Your task to perform on an android device: Open the calendar and show me this week's events? Image 0: 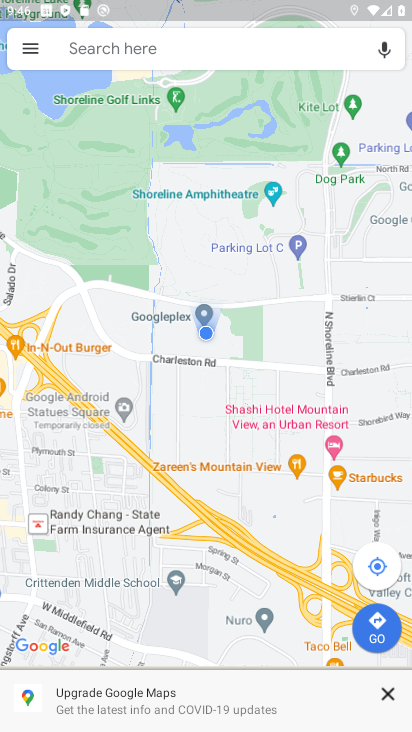
Step 0: press home button
Your task to perform on an android device: Open the calendar and show me this week's events? Image 1: 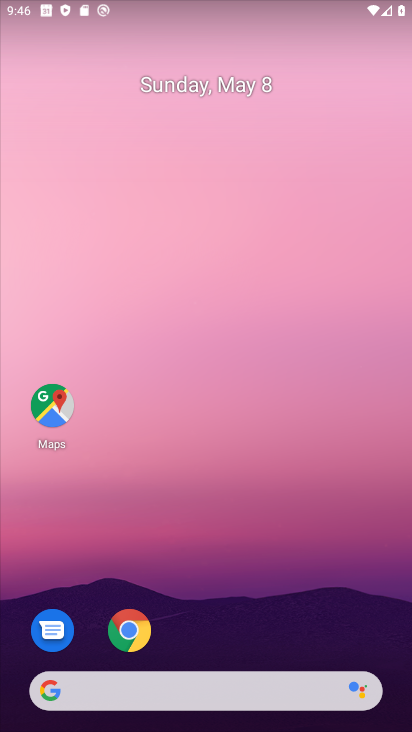
Step 1: drag from (221, 727) to (186, 284)
Your task to perform on an android device: Open the calendar and show me this week's events? Image 2: 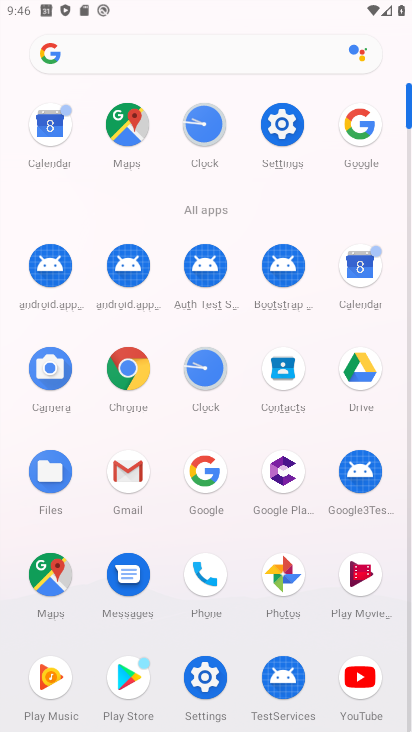
Step 2: click (364, 270)
Your task to perform on an android device: Open the calendar and show me this week's events? Image 3: 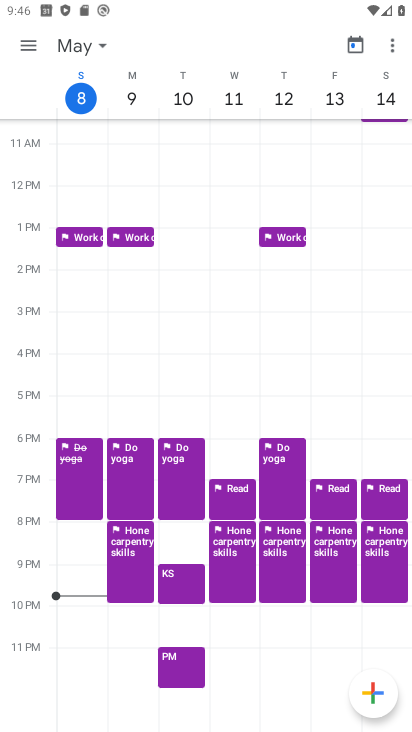
Step 3: task complete